Your task to perform on an android device: turn on airplane mode Image 0: 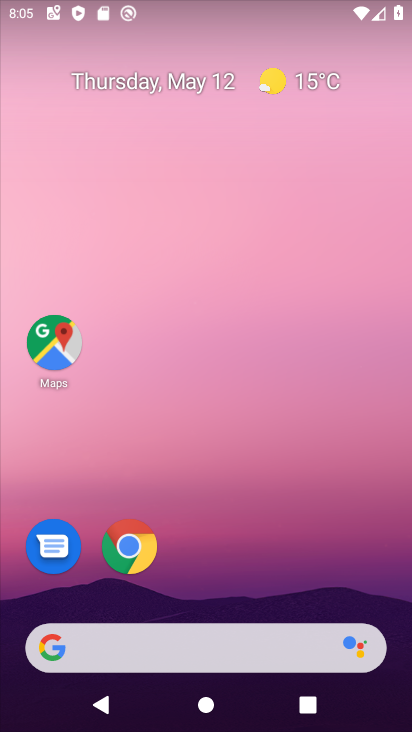
Step 0: drag from (211, 663) to (394, 178)
Your task to perform on an android device: turn on airplane mode Image 1: 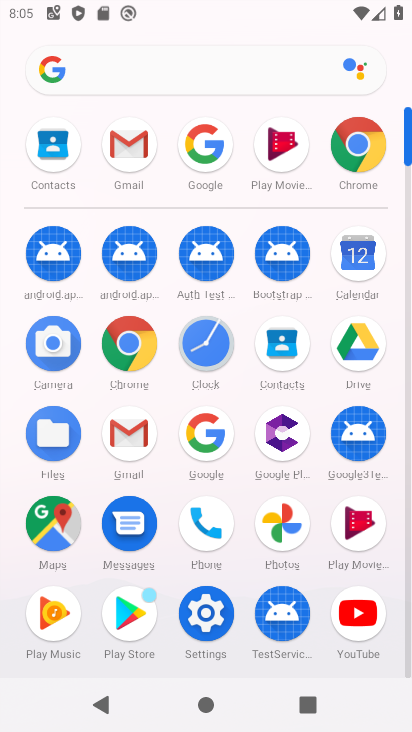
Step 1: click (207, 612)
Your task to perform on an android device: turn on airplane mode Image 2: 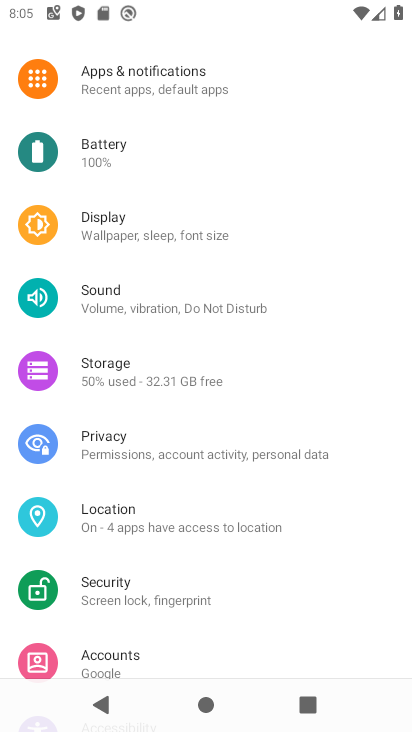
Step 2: drag from (273, 74) to (259, 482)
Your task to perform on an android device: turn on airplane mode Image 3: 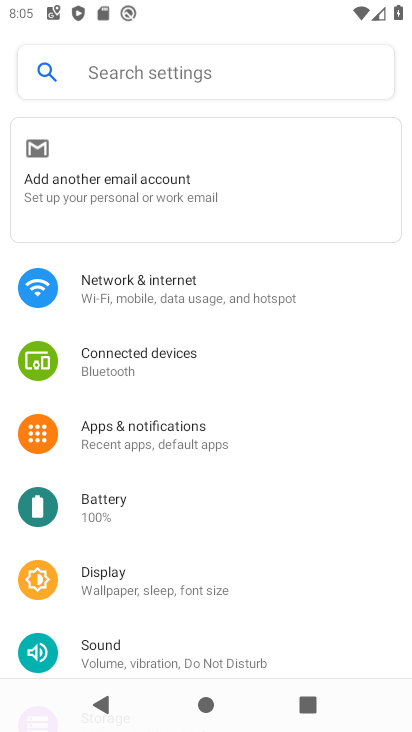
Step 3: click (175, 290)
Your task to perform on an android device: turn on airplane mode Image 4: 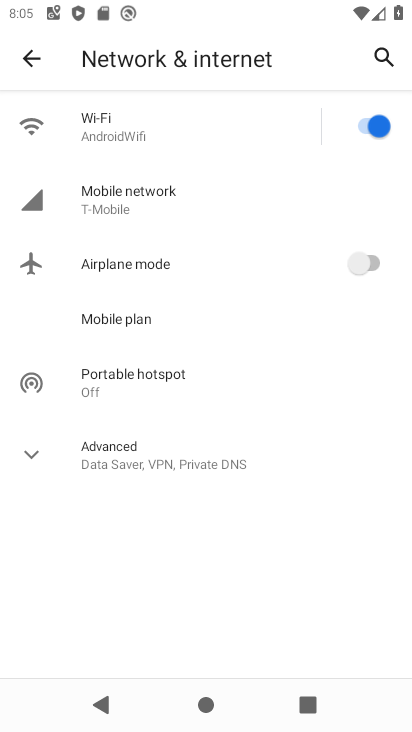
Step 4: click (377, 261)
Your task to perform on an android device: turn on airplane mode Image 5: 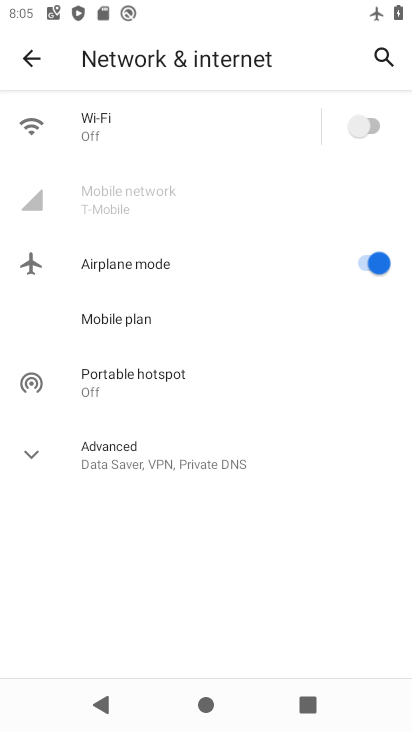
Step 5: task complete